Your task to perform on an android device: change the clock style Image 0: 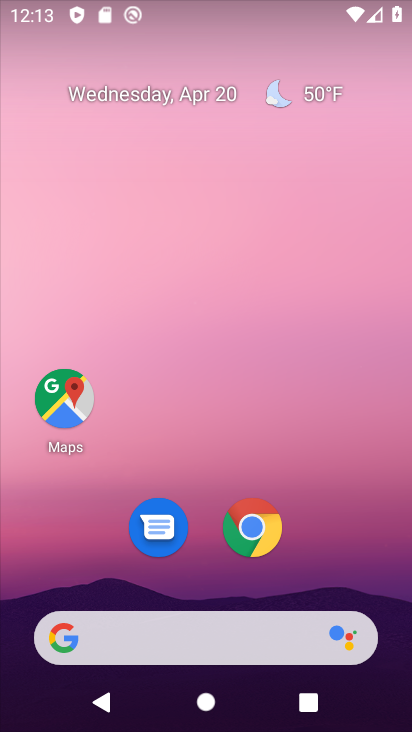
Step 0: drag from (358, 593) to (350, 5)
Your task to perform on an android device: change the clock style Image 1: 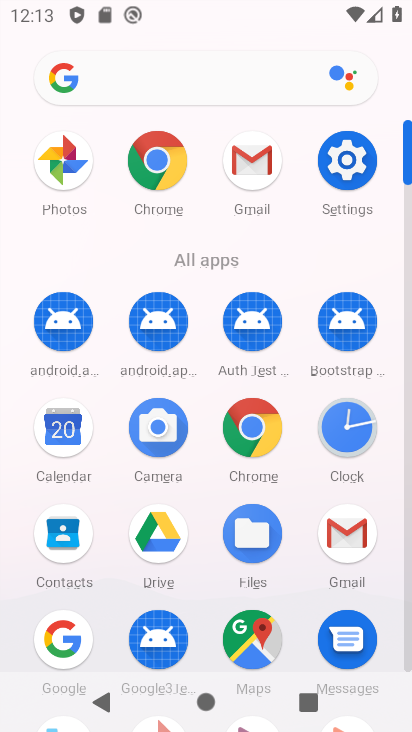
Step 1: click (346, 430)
Your task to perform on an android device: change the clock style Image 2: 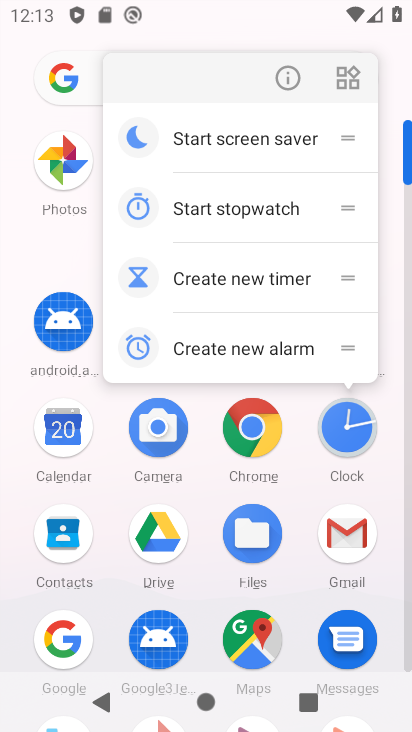
Step 2: click (338, 440)
Your task to perform on an android device: change the clock style Image 3: 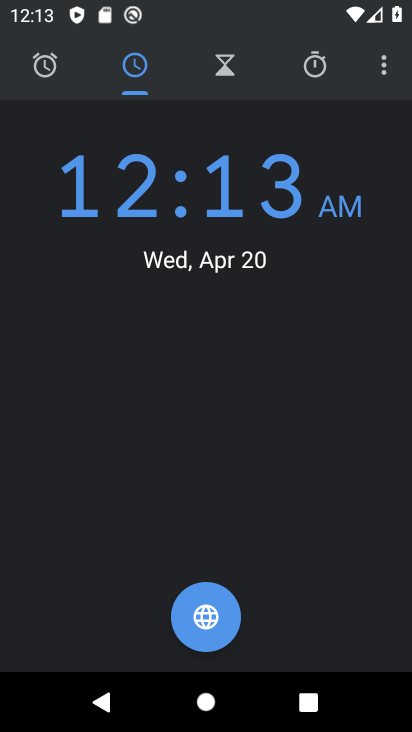
Step 3: click (387, 68)
Your task to perform on an android device: change the clock style Image 4: 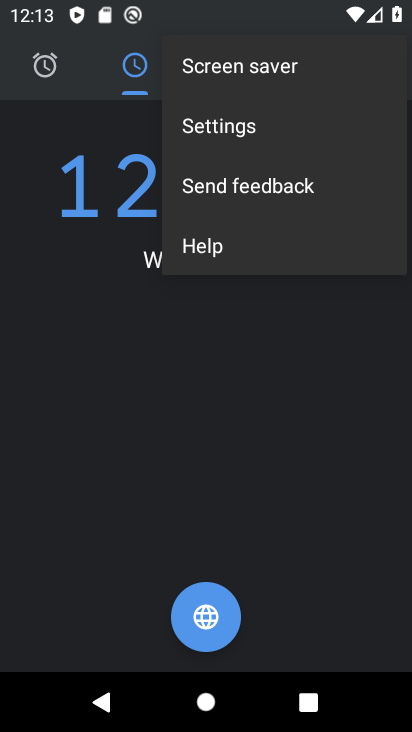
Step 4: click (233, 130)
Your task to perform on an android device: change the clock style Image 5: 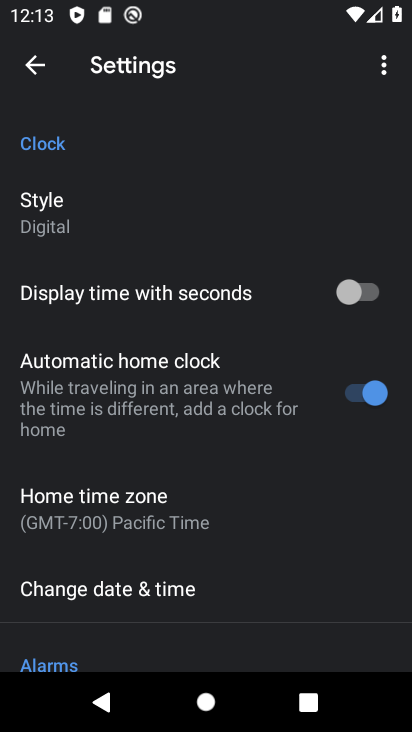
Step 5: click (55, 212)
Your task to perform on an android device: change the clock style Image 6: 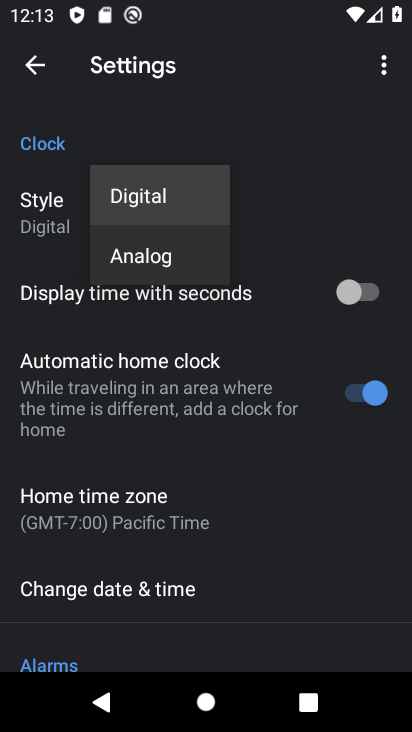
Step 6: click (157, 258)
Your task to perform on an android device: change the clock style Image 7: 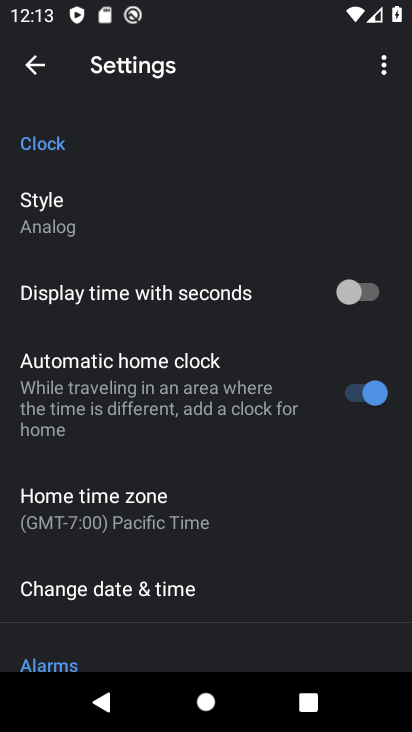
Step 7: task complete